Your task to perform on an android device: Search for Italian restaurants on Maps Image 0: 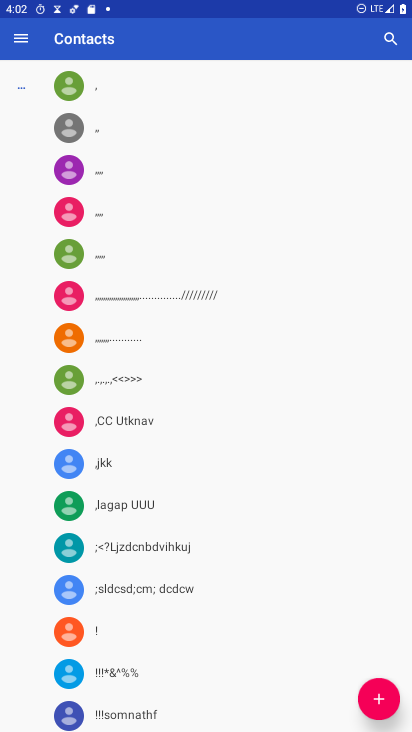
Step 0: press home button
Your task to perform on an android device: Search for Italian restaurants on Maps Image 1: 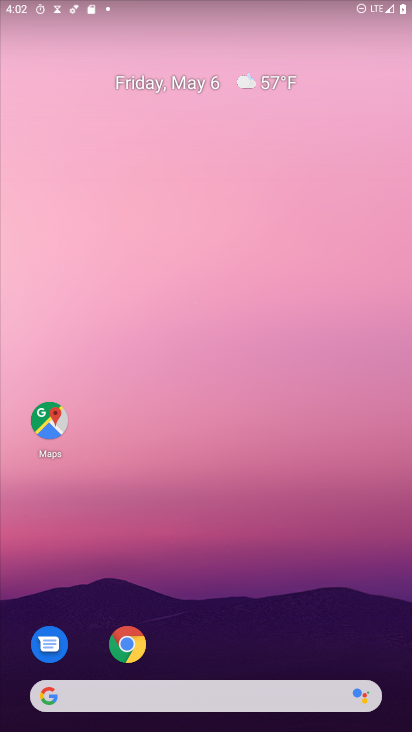
Step 1: drag from (218, 685) to (219, 140)
Your task to perform on an android device: Search for Italian restaurants on Maps Image 2: 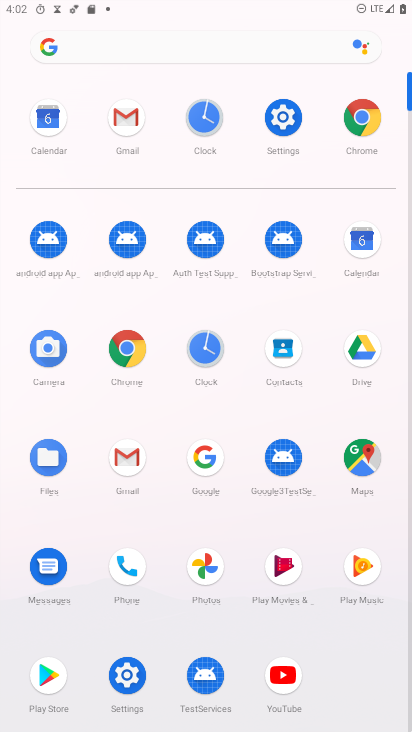
Step 2: click (364, 453)
Your task to perform on an android device: Search for Italian restaurants on Maps Image 3: 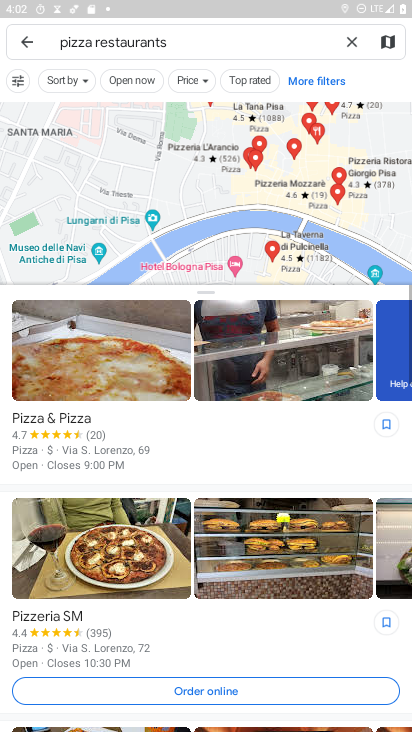
Step 3: click (352, 37)
Your task to perform on an android device: Search for Italian restaurants on Maps Image 4: 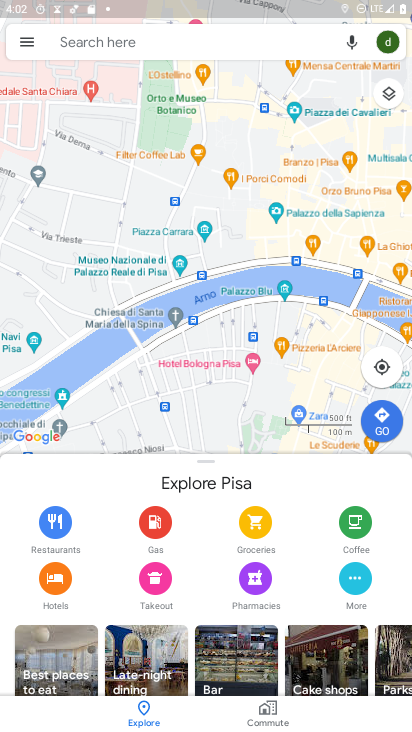
Step 4: click (207, 41)
Your task to perform on an android device: Search for Italian restaurants on Maps Image 5: 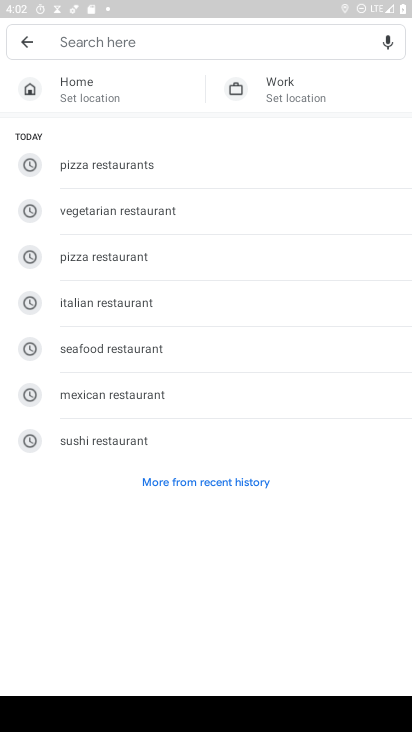
Step 5: type "italian restaurants"
Your task to perform on an android device: Search for Italian restaurants on Maps Image 6: 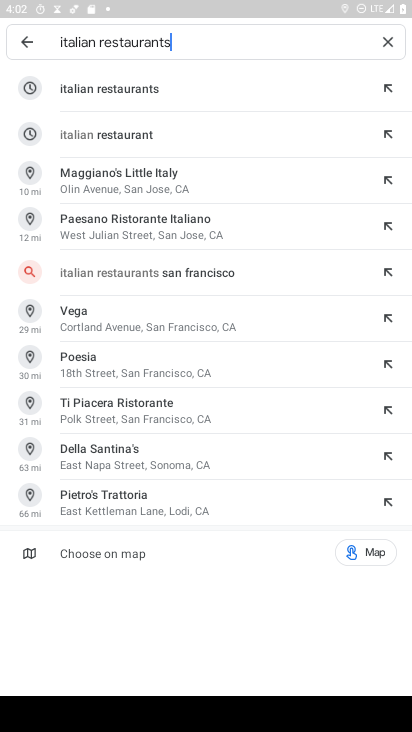
Step 6: click (98, 89)
Your task to perform on an android device: Search for Italian restaurants on Maps Image 7: 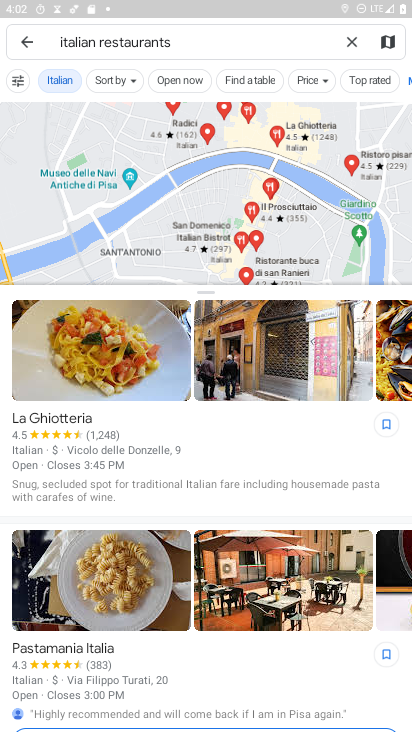
Step 7: task complete